Your task to perform on an android device: Open sound settings Image 0: 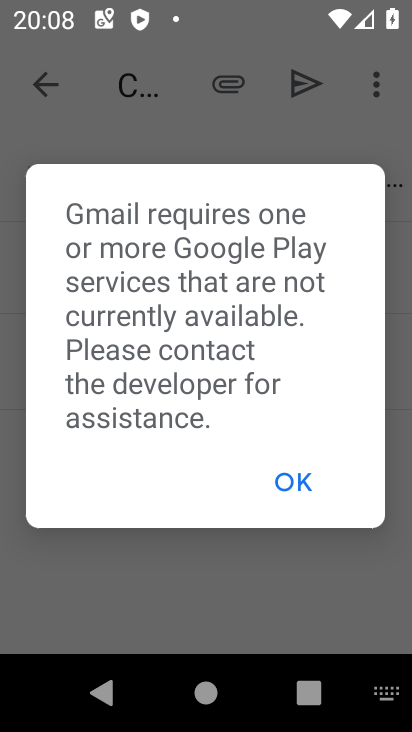
Step 0: press home button
Your task to perform on an android device: Open sound settings Image 1: 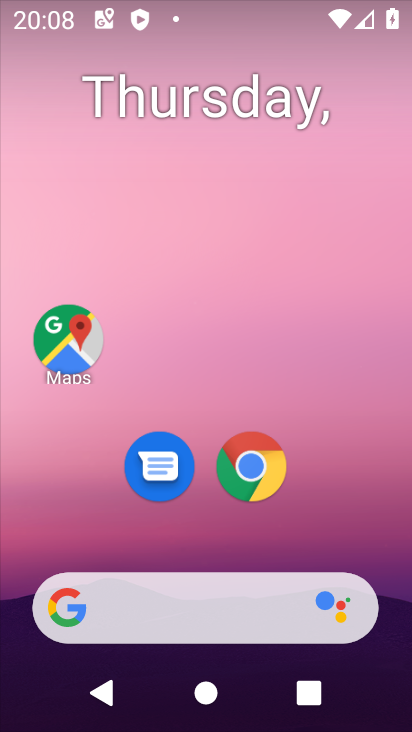
Step 1: drag from (367, 534) to (346, 0)
Your task to perform on an android device: Open sound settings Image 2: 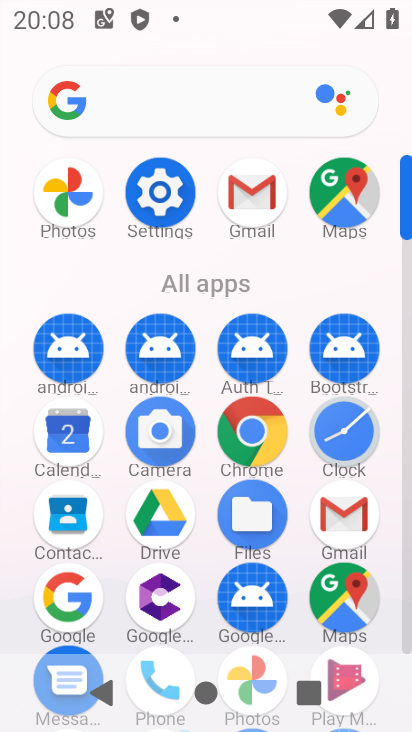
Step 2: click (137, 187)
Your task to perform on an android device: Open sound settings Image 3: 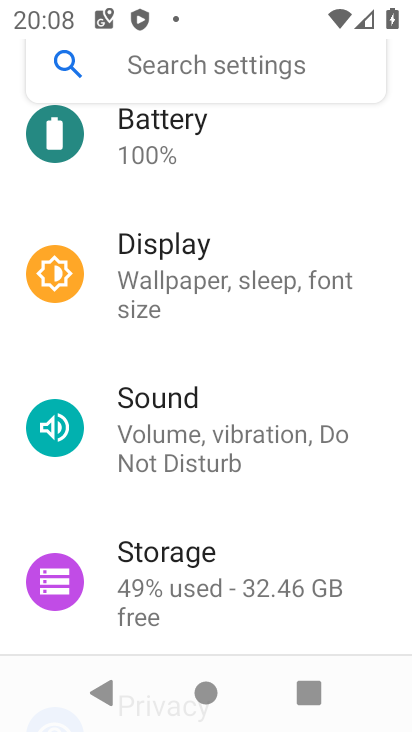
Step 3: click (211, 411)
Your task to perform on an android device: Open sound settings Image 4: 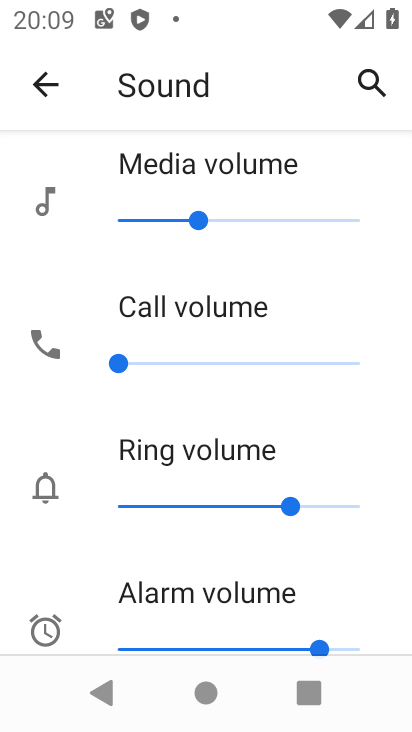
Step 4: task complete